Your task to perform on an android device: change the clock display to analog Image 0: 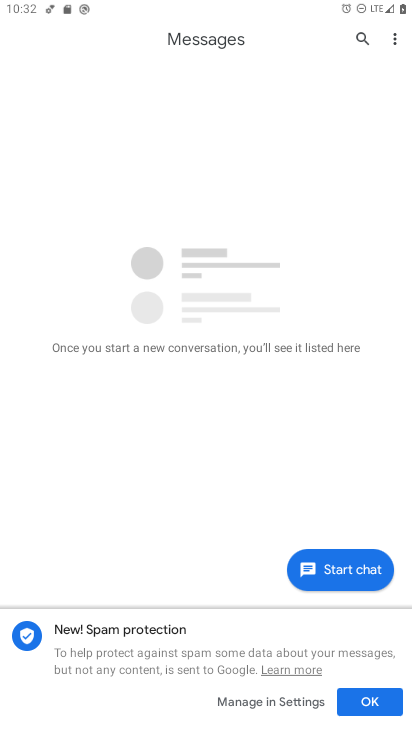
Step 0: drag from (207, 644) to (214, 66)
Your task to perform on an android device: change the clock display to analog Image 1: 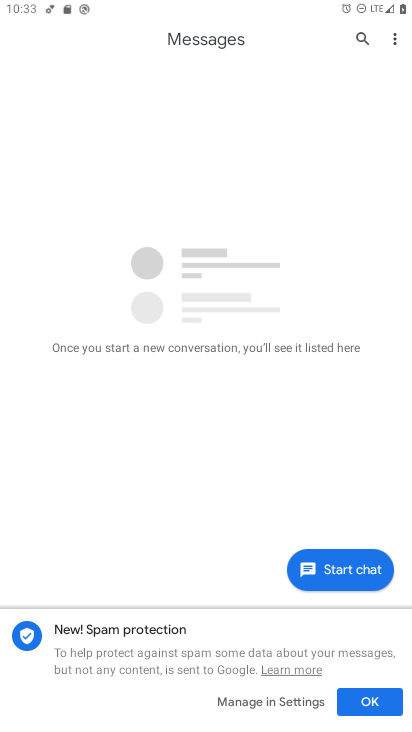
Step 1: press home button
Your task to perform on an android device: change the clock display to analog Image 2: 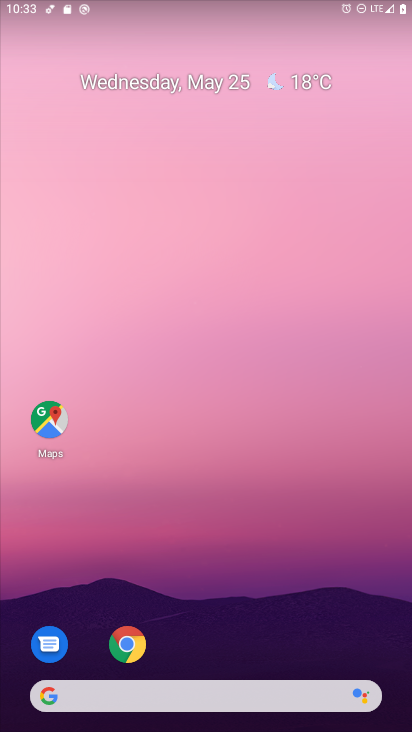
Step 2: drag from (226, 647) to (238, 71)
Your task to perform on an android device: change the clock display to analog Image 3: 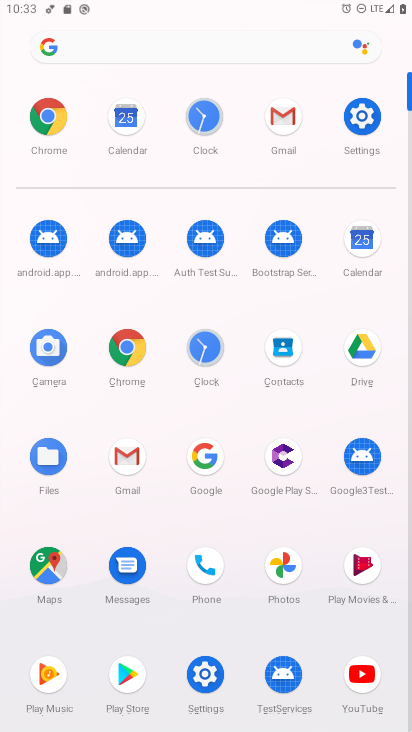
Step 3: click (207, 111)
Your task to perform on an android device: change the clock display to analog Image 4: 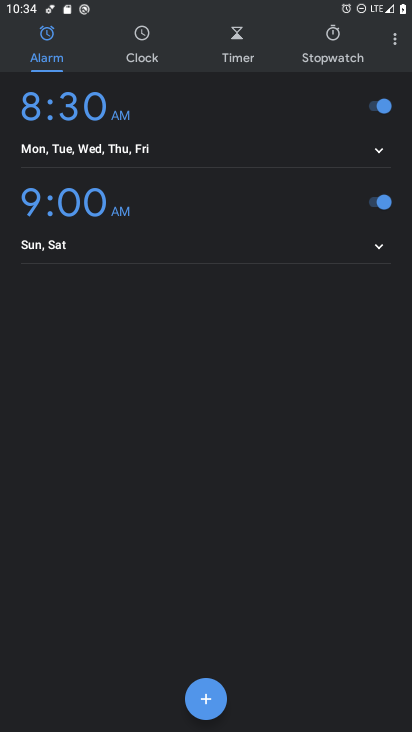
Step 4: click (390, 43)
Your task to perform on an android device: change the clock display to analog Image 5: 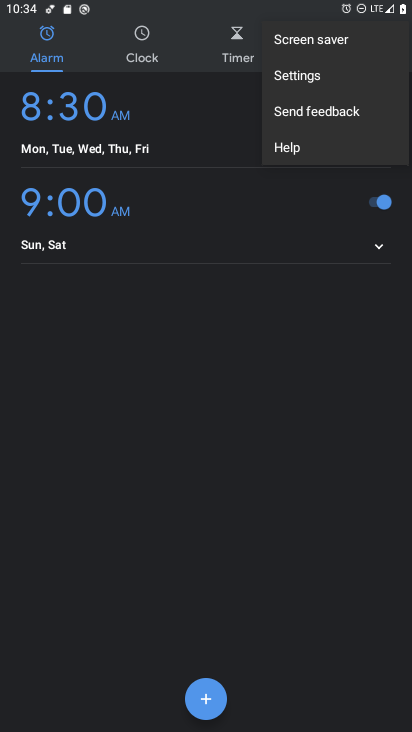
Step 5: click (329, 77)
Your task to perform on an android device: change the clock display to analog Image 6: 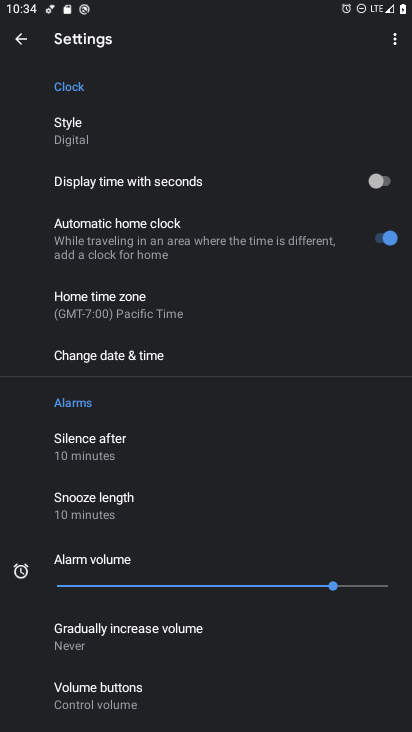
Step 6: click (93, 123)
Your task to perform on an android device: change the clock display to analog Image 7: 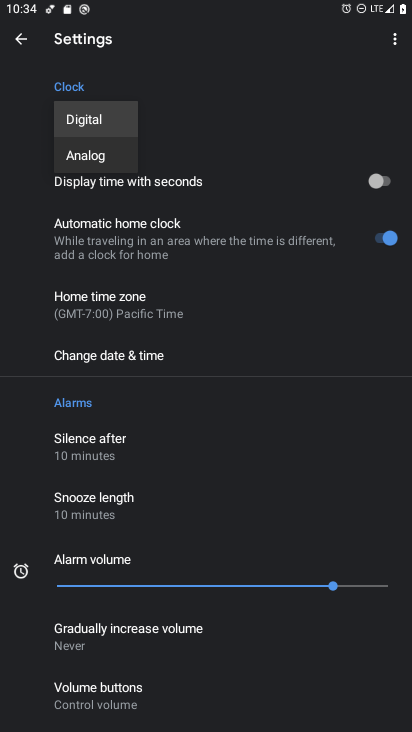
Step 7: click (107, 156)
Your task to perform on an android device: change the clock display to analog Image 8: 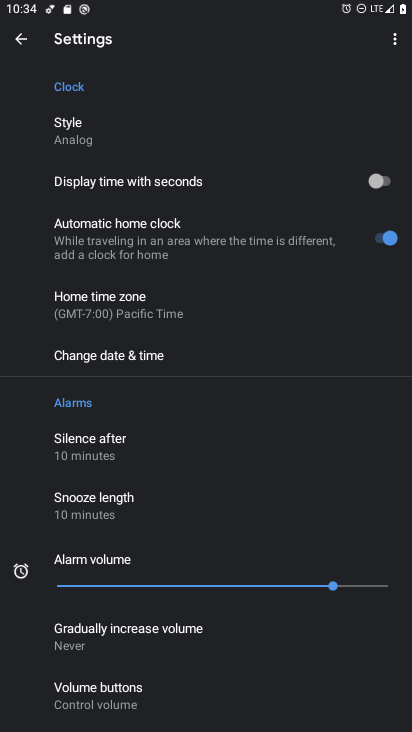
Step 8: task complete